Your task to perform on an android device: What is the recent news? Image 0: 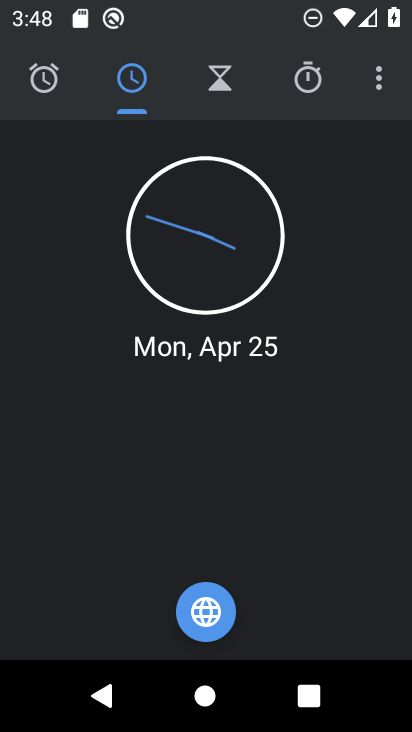
Step 0: press home button
Your task to perform on an android device: What is the recent news? Image 1: 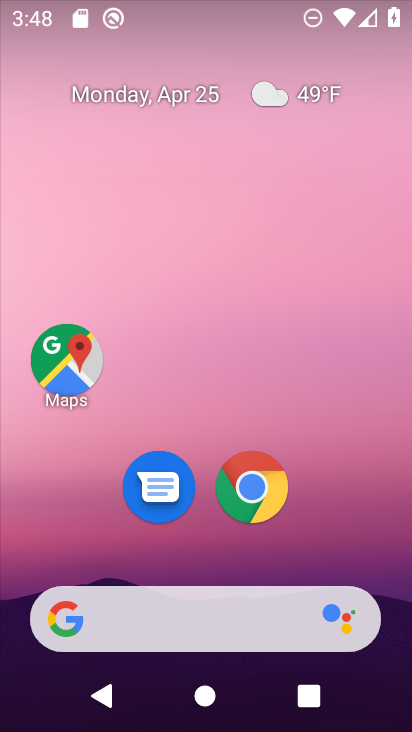
Step 1: task complete